Your task to perform on an android device: turn on showing notifications on the lock screen Image 0: 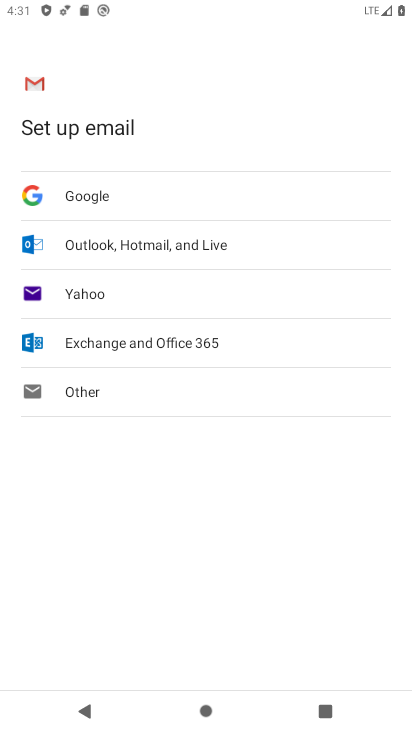
Step 0: press home button
Your task to perform on an android device: turn on showing notifications on the lock screen Image 1: 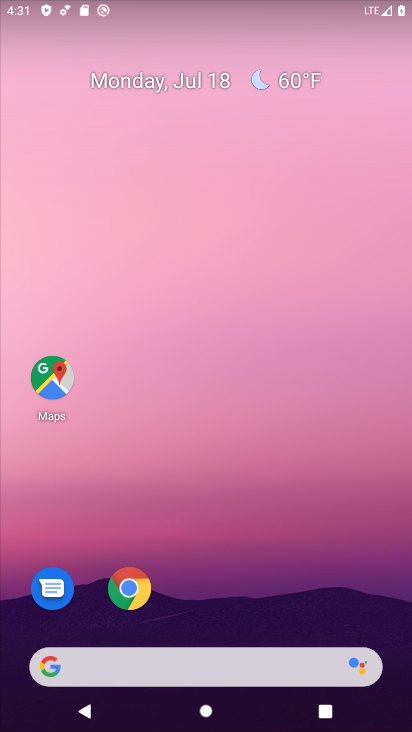
Step 1: drag from (207, 627) to (229, 175)
Your task to perform on an android device: turn on showing notifications on the lock screen Image 2: 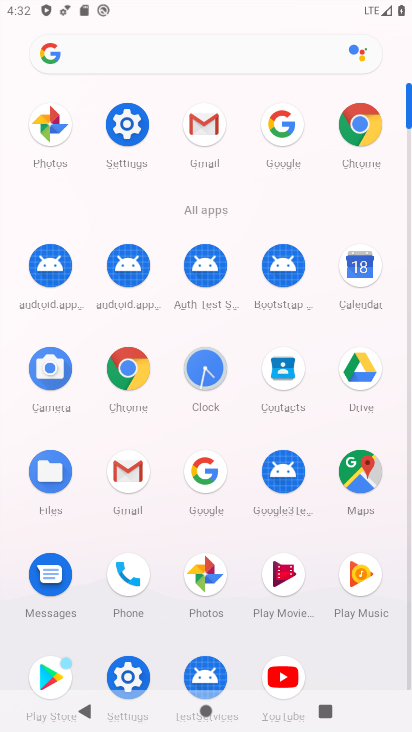
Step 2: click (116, 117)
Your task to perform on an android device: turn on showing notifications on the lock screen Image 3: 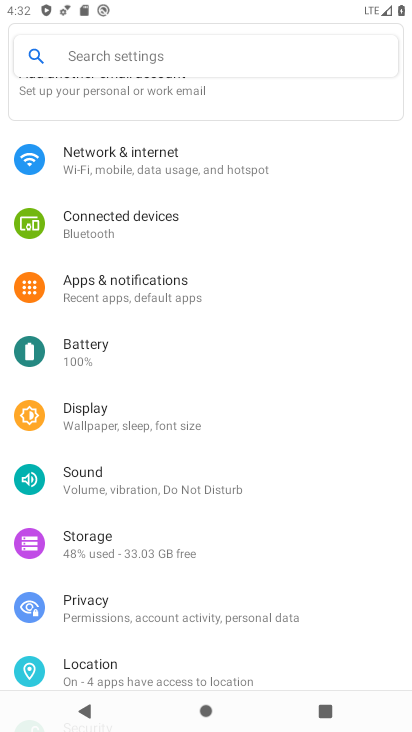
Step 3: click (141, 285)
Your task to perform on an android device: turn on showing notifications on the lock screen Image 4: 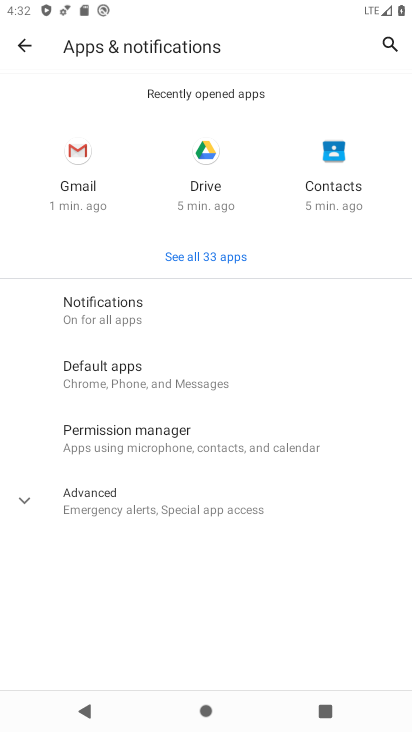
Step 4: click (147, 313)
Your task to perform on an android device: turn on showing notifications on the lock screen Image 5: 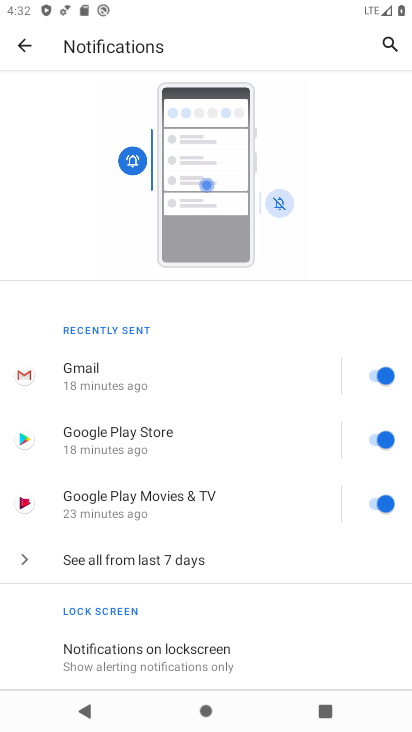
Step 5: drag from (199, 627) to (224, 378)
Your task to perform on an android device: turn on showing notifications on the lock screen Image 6: 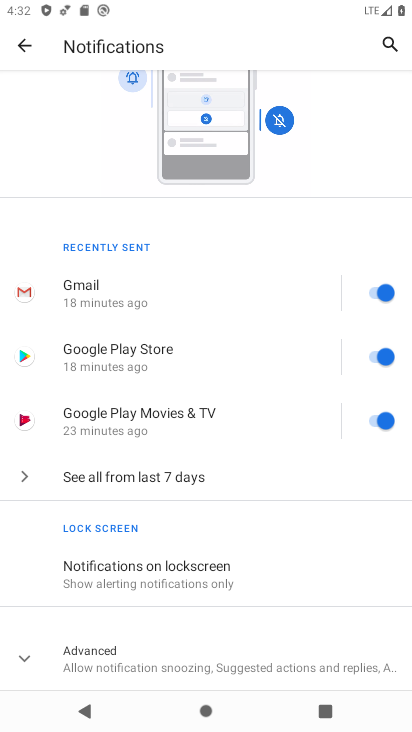
Step 6: click (243, 570)
Your task to perform on an android device: turn on showing notifications on the lock screen Image 7: 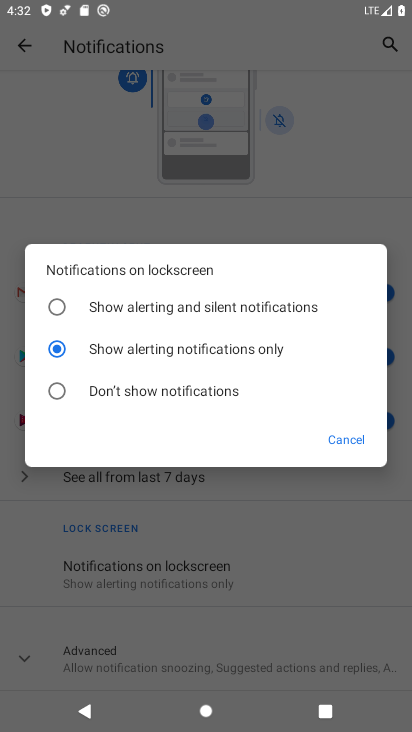
Step 7: click (51, 300)
Your task to perform on an android device: turn on showing notifications on the lock screen Image 8: 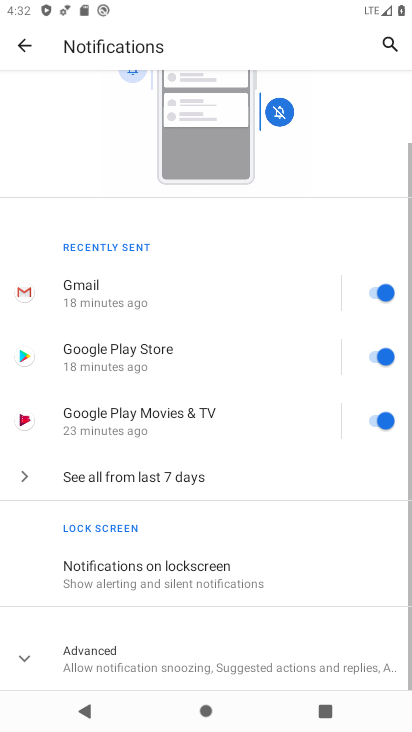
Step 8: task complete